Your task to perform on an android device: set default search engine in the chrome app Image 0: 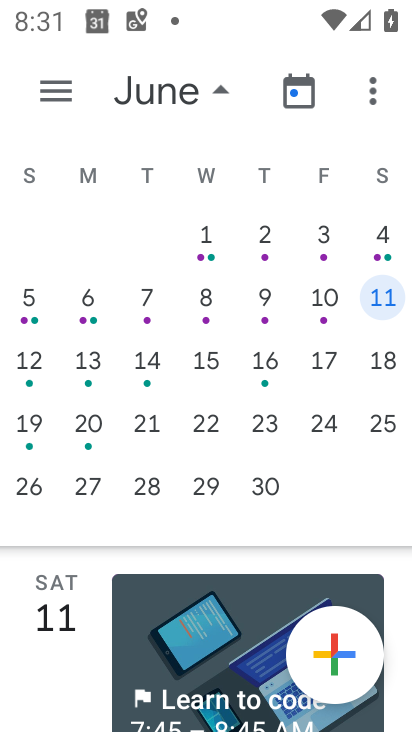
Step 0: press home button
Your task to perform on an android device: set default search engine in the chrome app Image 1: 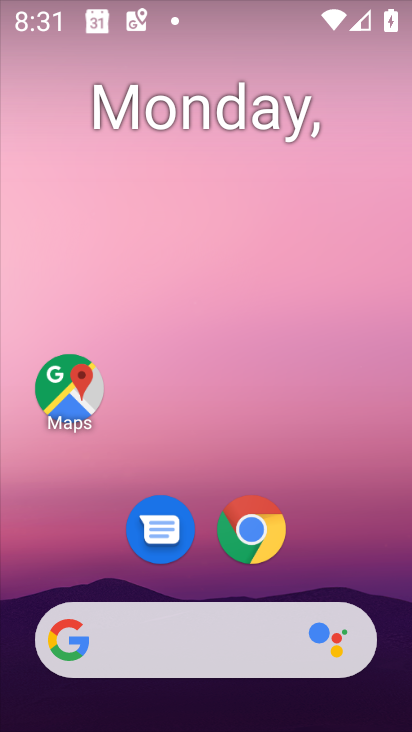
Step 1: click (262, 520)
Your task to perform on an android device: set default search engine in the chrome app Image 2: 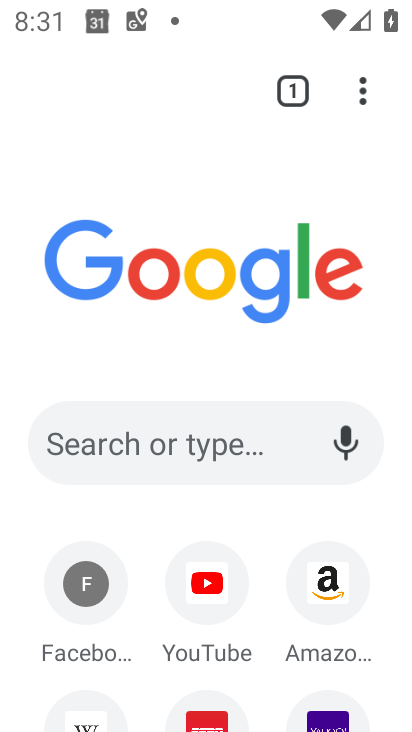
Step 2: click (368, 92)
Your task to perform on an android device: set default search engine in the chrome app Image 3: 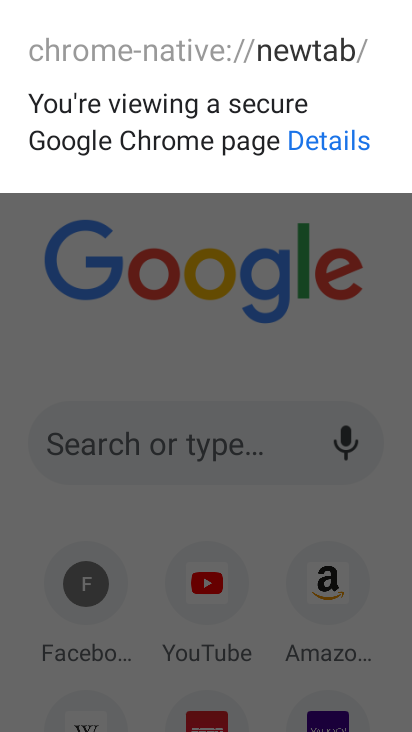
Step 3: click (355, 307)
Your task to perform on an android device: set default search engine in the chrome app Image 4: 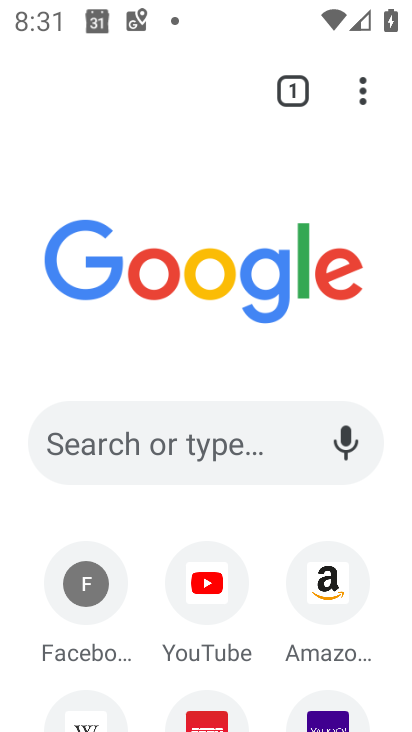
Step 4: click (363, 94)
Your task to perform on an android device: set default search engine in the chrome app Image 5: 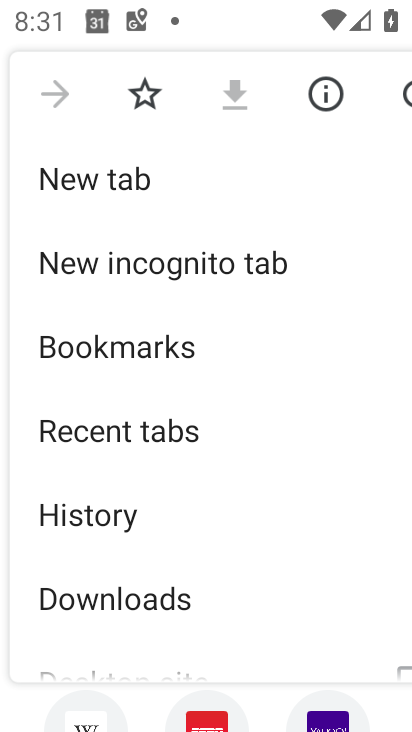
Step 5: drag from (168, 613) to (243, 238)
Your task to perform on an android device: set default search engine in the chrome app Image 6: 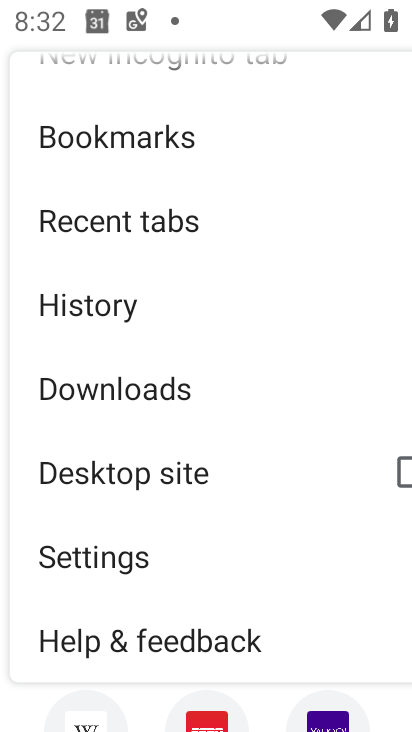
Step 6: click (97, 537)
Your task to perform on an android device: set default search engine in the chrome app Image 7: 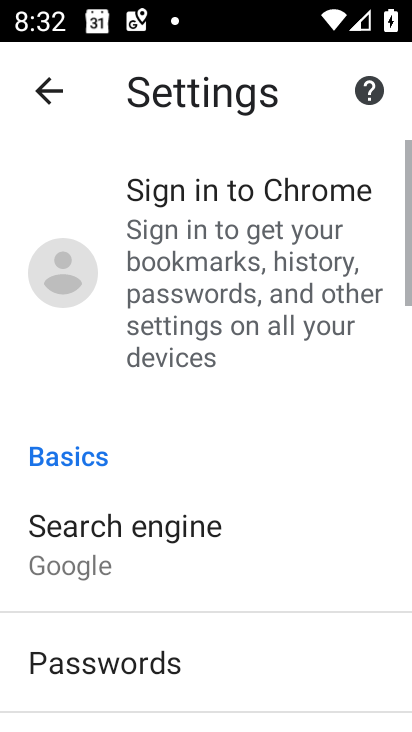
Step 7: click (99, 537)
Your task to perform on an android device: set default search engine in the chrome app Image 8: 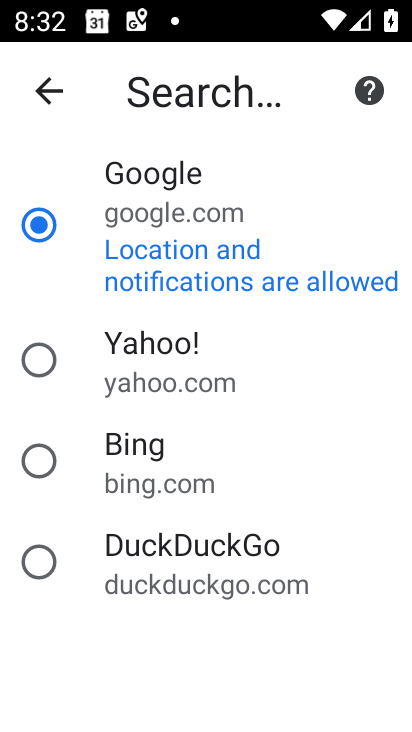
Step 8: task complete